Your task to perform on an android device: see sites visited before in the chrome app Image 0: 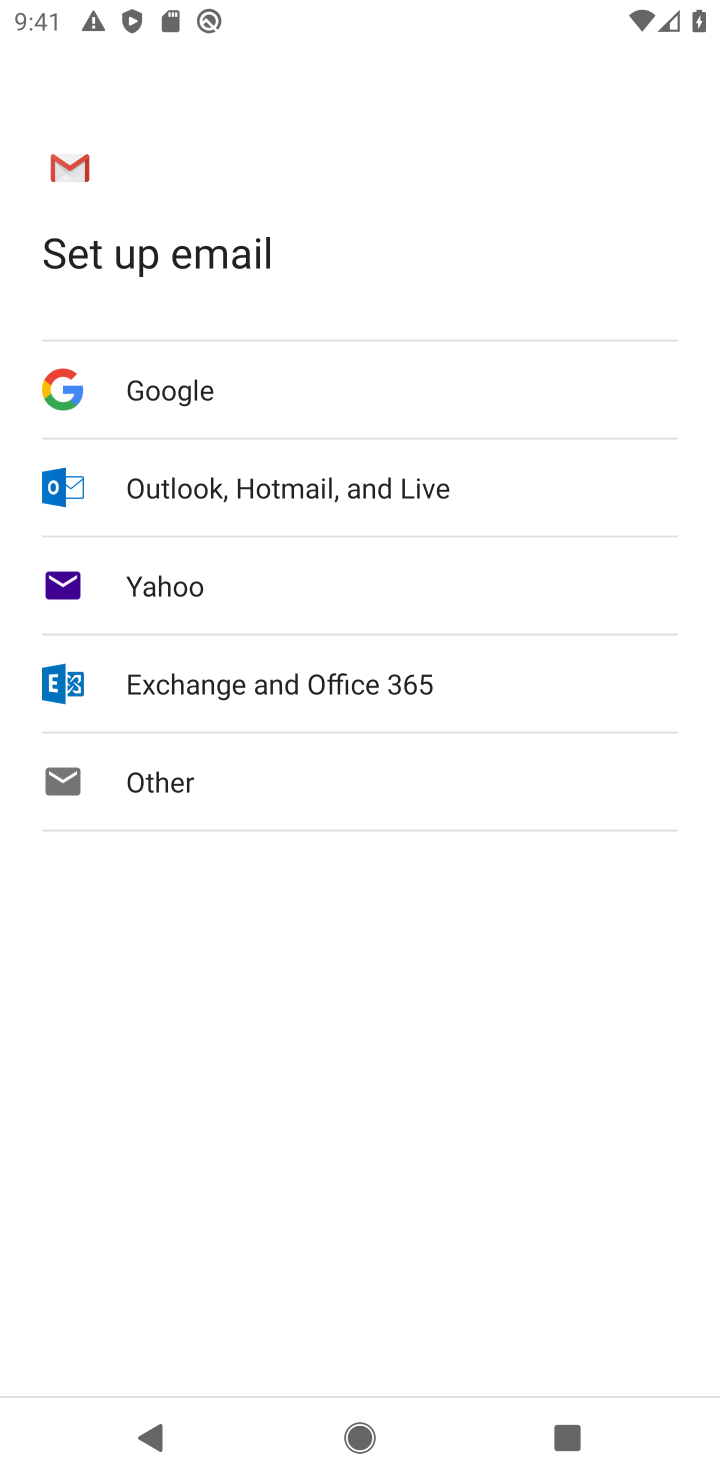
Step 0: press home button
Your task to perform on an android device: see sites visited before in the chrome app Image 1: 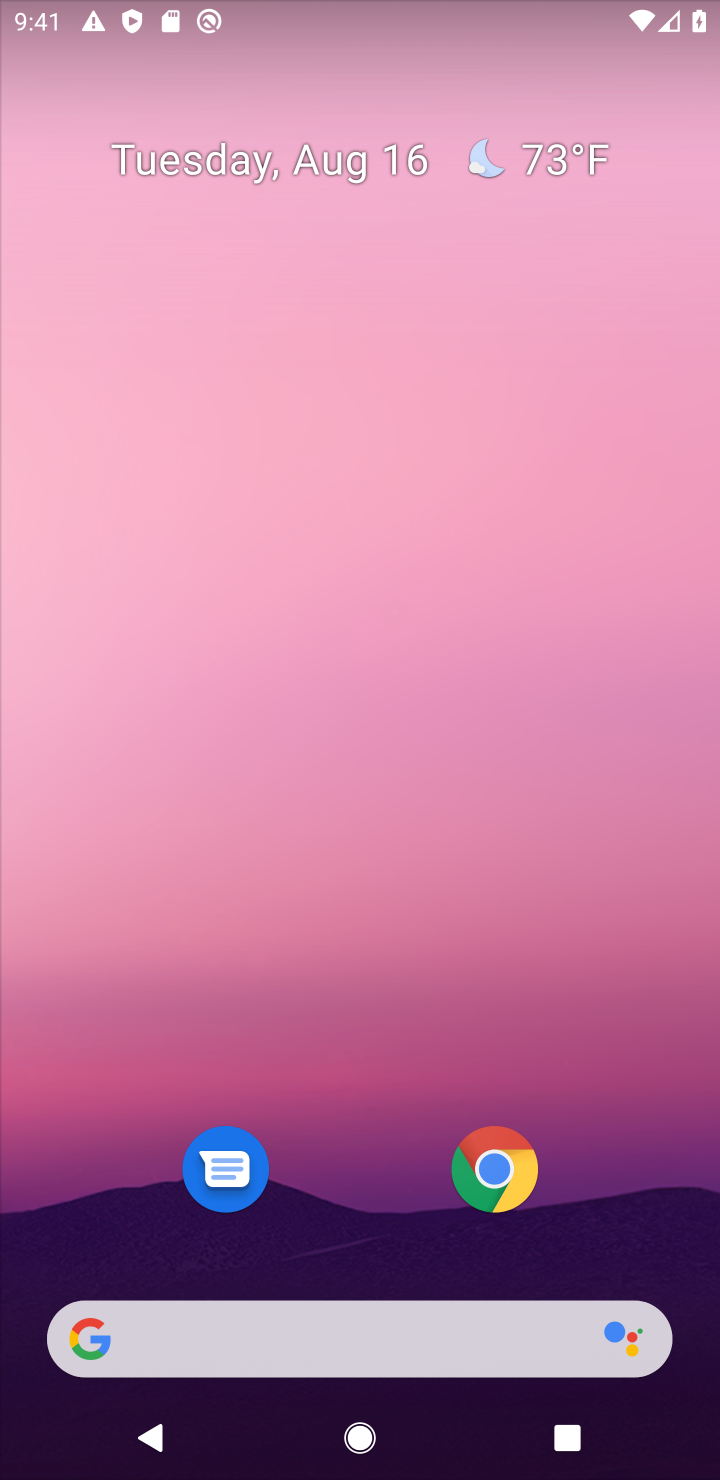
Step 1: click (485, 1180)
Your task to perform on an android device: see sites visited before in the chrome app Image 2: 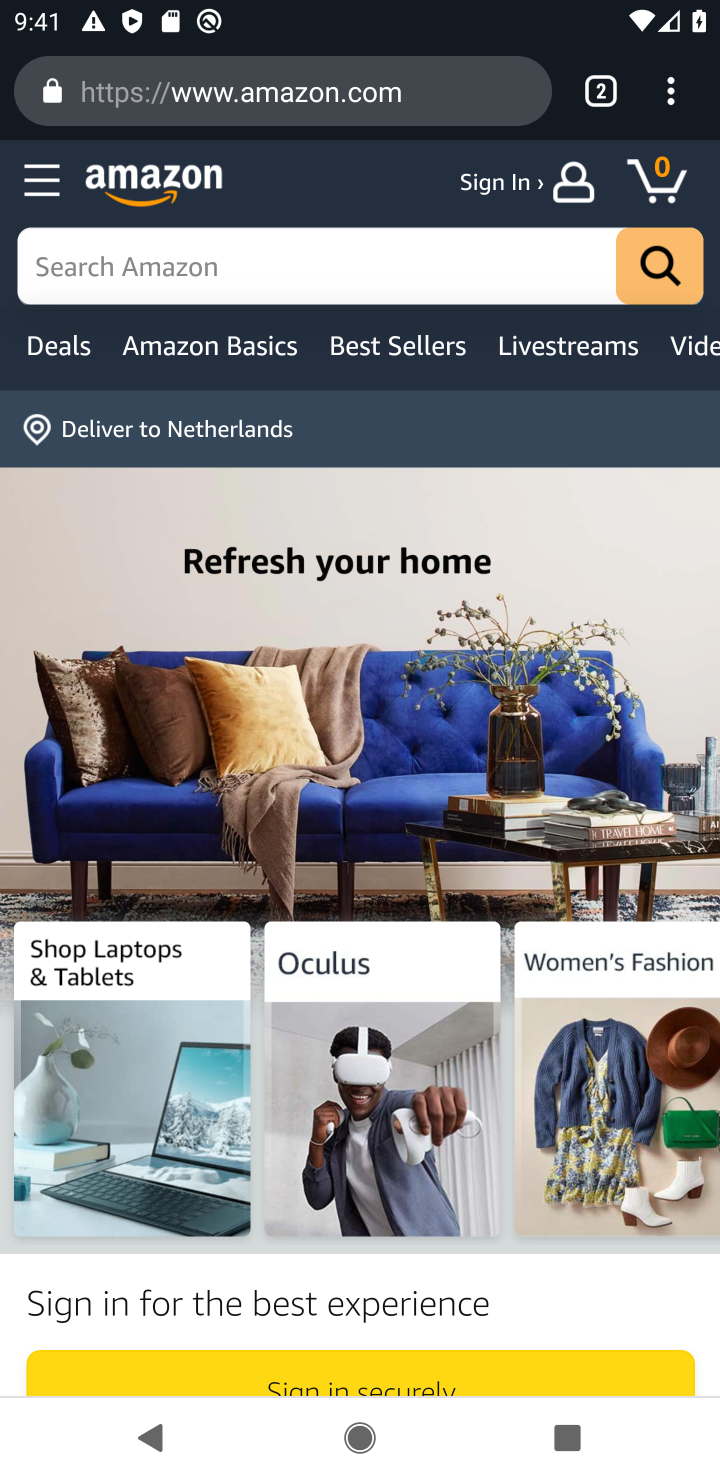
Step 2: click (673, 102)
Your task to perform on an android device: see sites visited before in the chrome app Image 3: 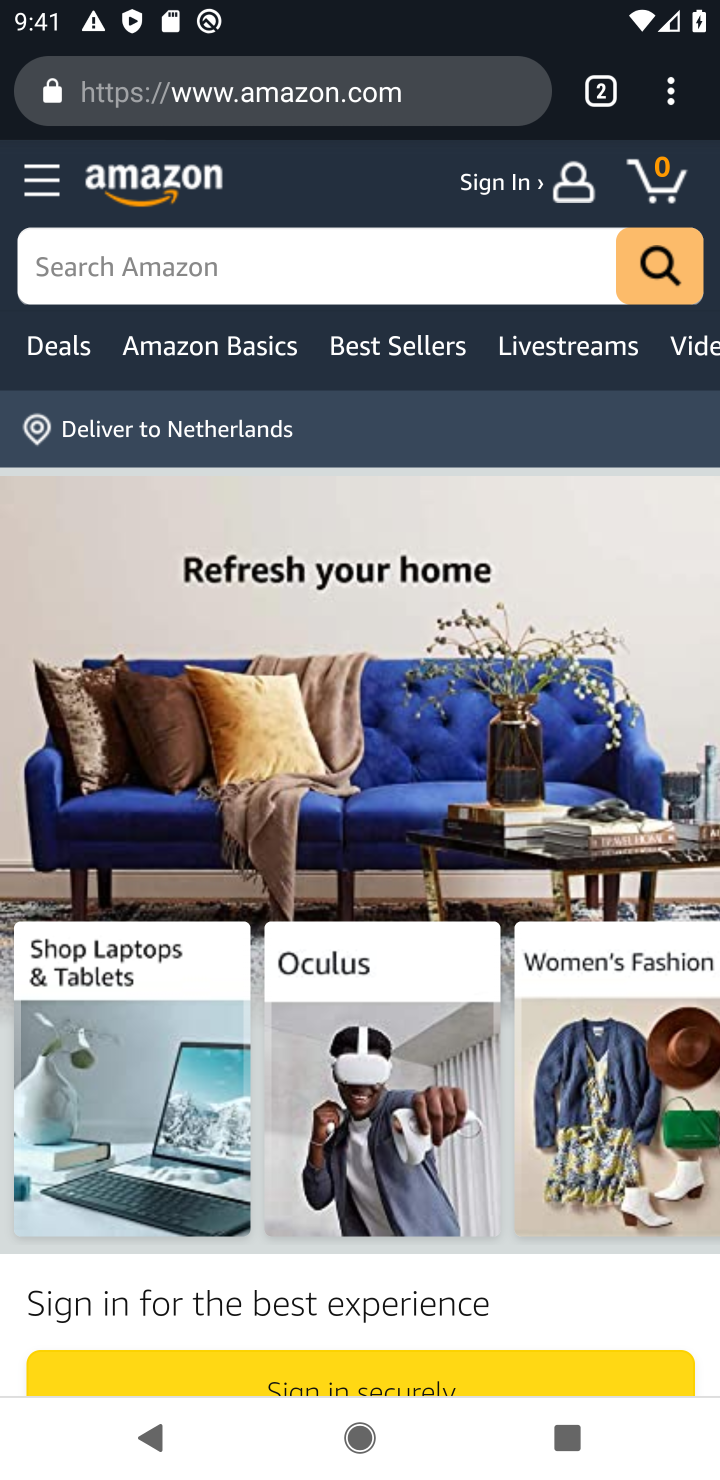
Step 3: click (661, 99)
Your task to perform on an android device: see sites visited before in the chrome app Image 4: 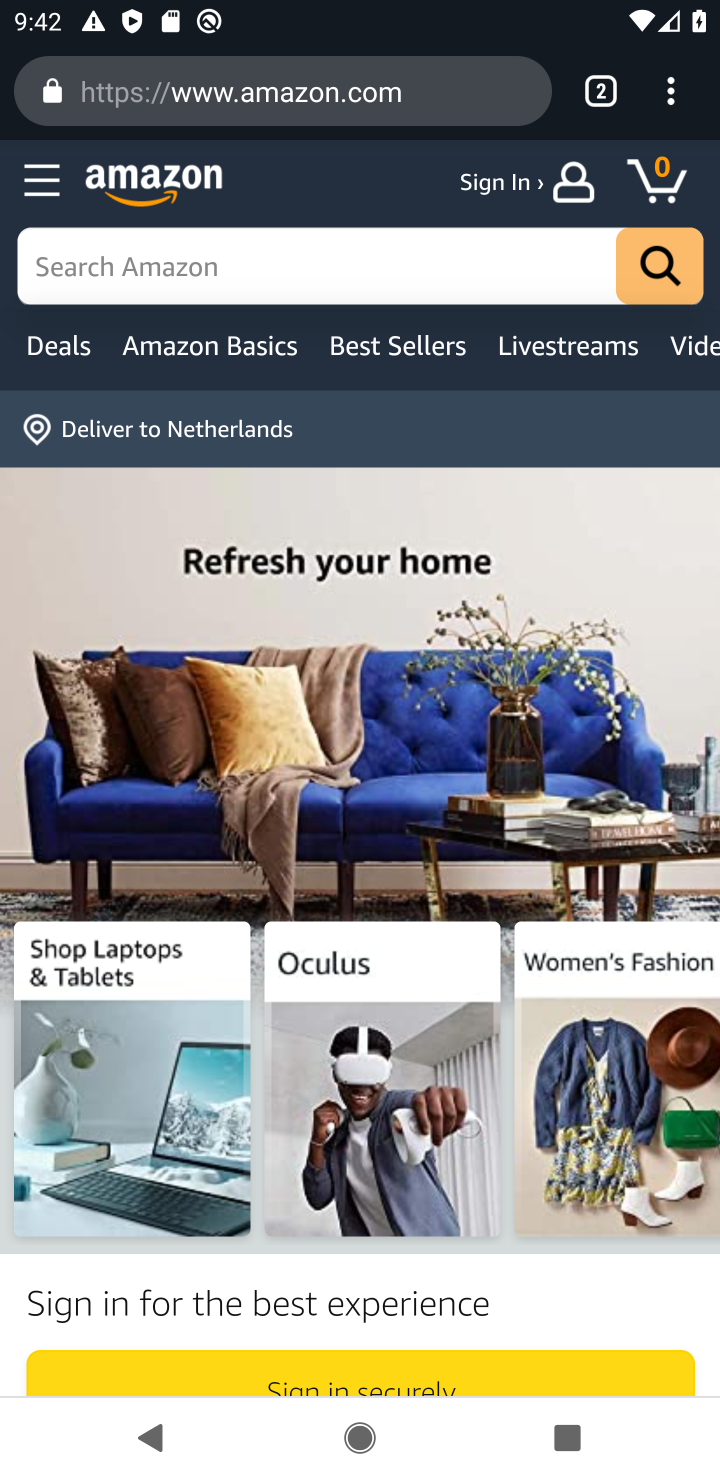
Step 4: click (661, 99)
Your task to perform on an android device: see sites visited before in the chrome app Image 5: 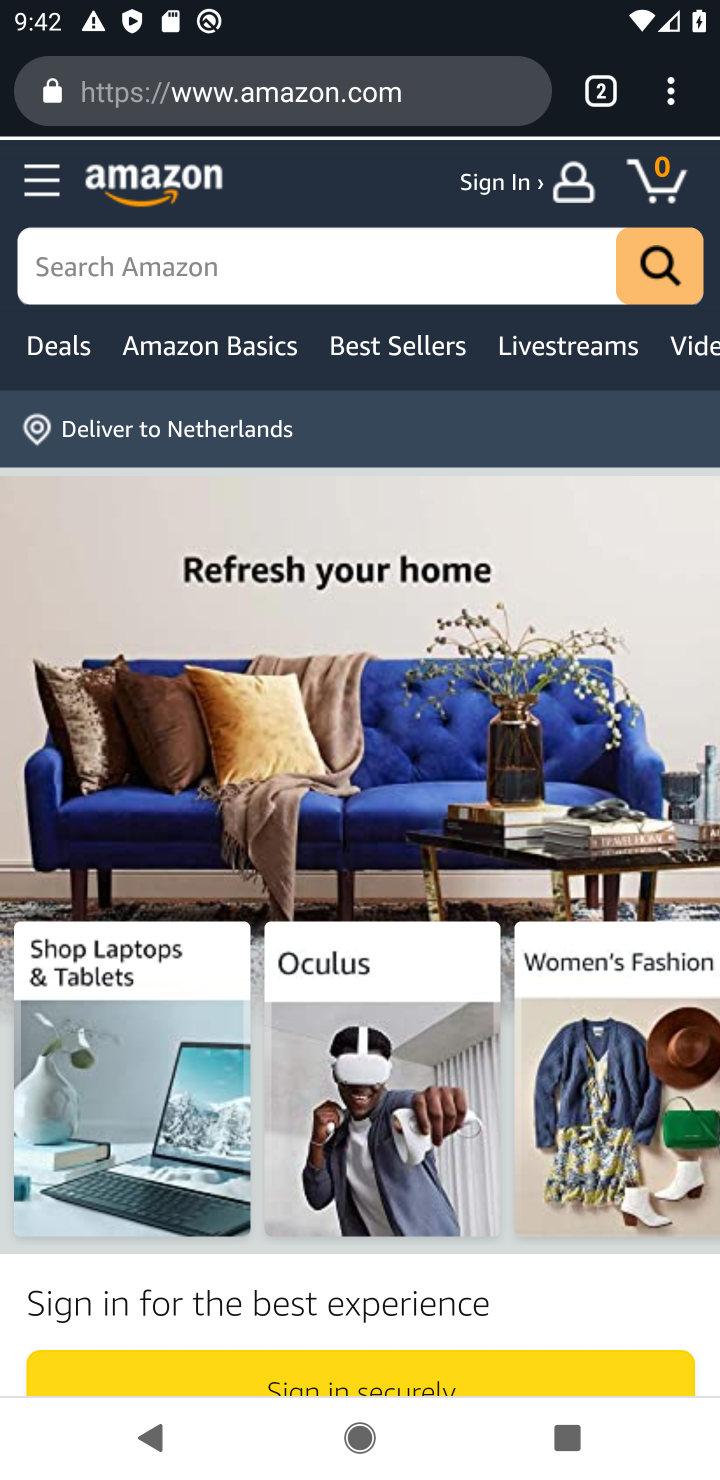
Step 5: task complete